Your task to perform on an android device: Go to network settings Image 0: 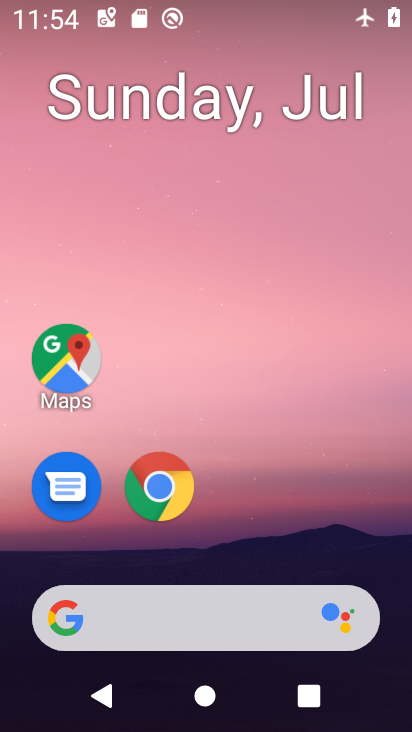
Step 0: drag from (312, 525) to (326, 120)
Your task to perform on an android device: Go to network settings Image 1: 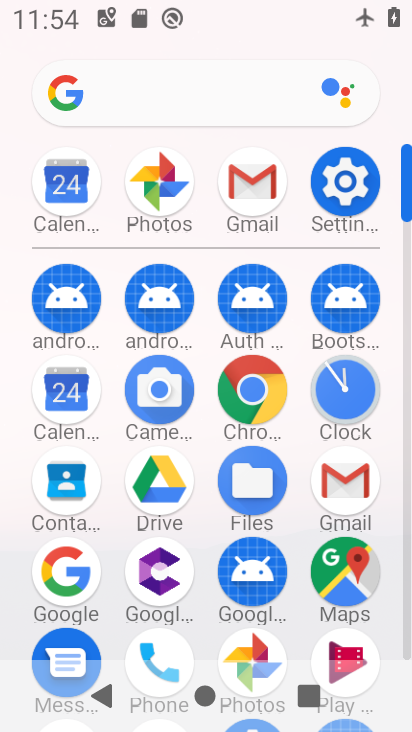
Step 1: click (357, 202)
Your task to perform on an android device: Go to network settings Image 2: 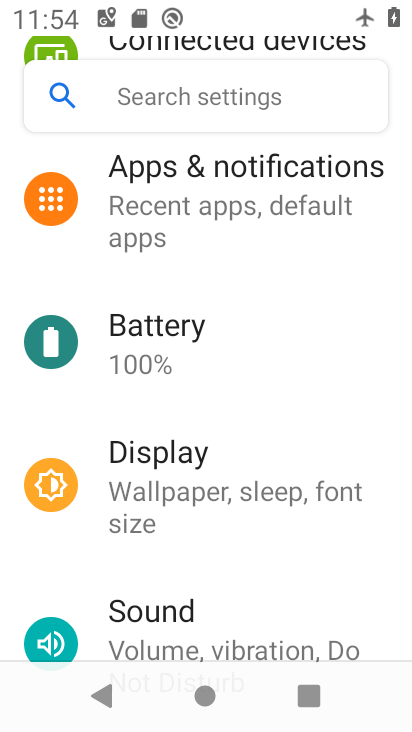
Step 2: drag from (357, 597) to (363, 437)
Your task to perform on an android device: Go to network settings Image 3: 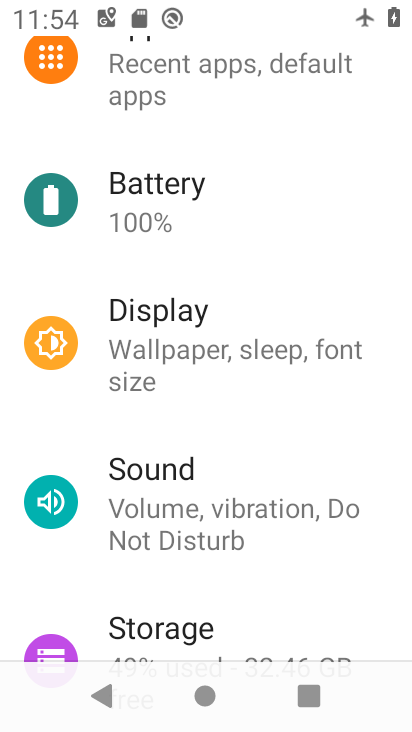
Step 3: drag from (358, 605) to (346, 350)
Your task to perform on an android device: Go to network settings Image 4: 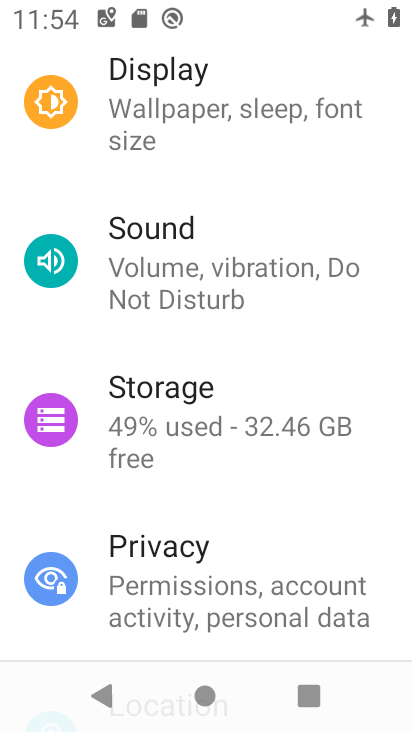
Step 4: drag from (328, 595) to (328, 405)
Your task to perform on an android device: Go to network settings Image 5: 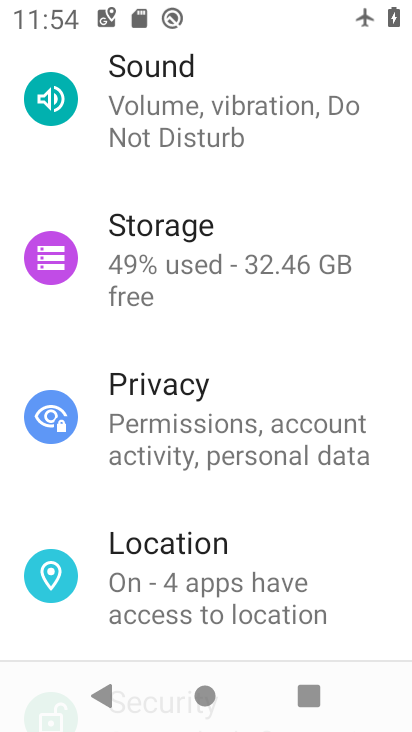
Step 5: drag from (363, 599) to (343, 442)
Your task to perform on an android device: Go to network settings Image 6: 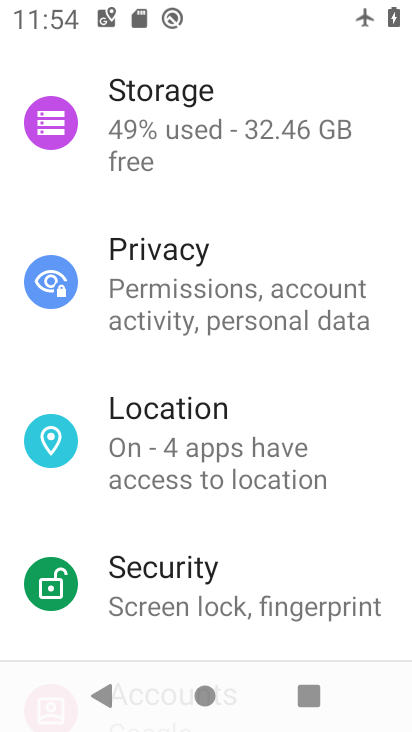
Step 6: drag from (343, 611) to (340, 475)
Your task to perform on an android device: Go to network settings Image 7: 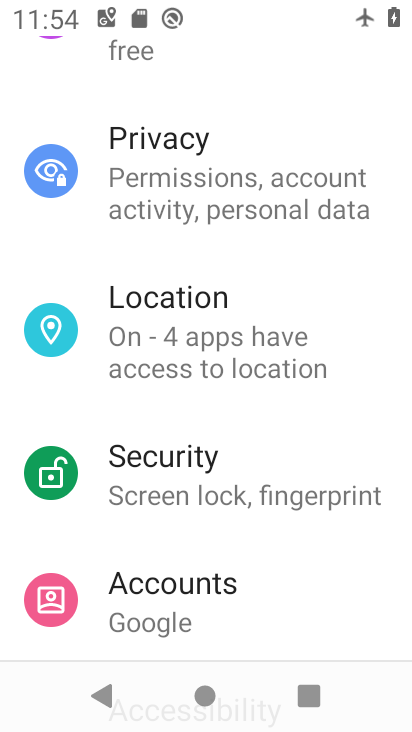
Step 7: drag from (365, 256) to (347, 373)
Your task to perform on an android device: Go to network settings Image 8: 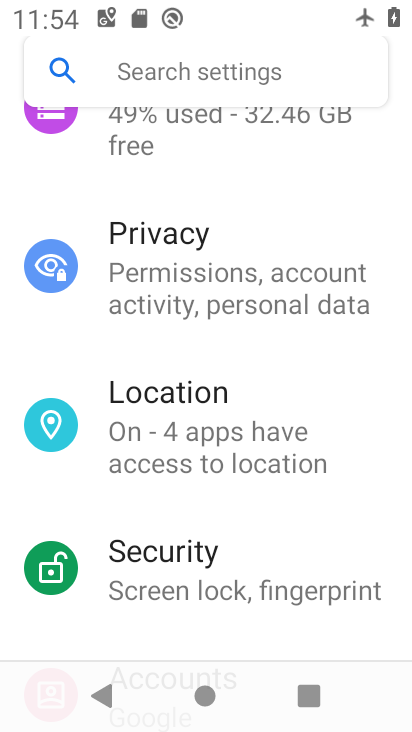
Step 8: drag from (351, 196) to (353, 345)
Your task to perform on an android device: Go to network settings Image 9: 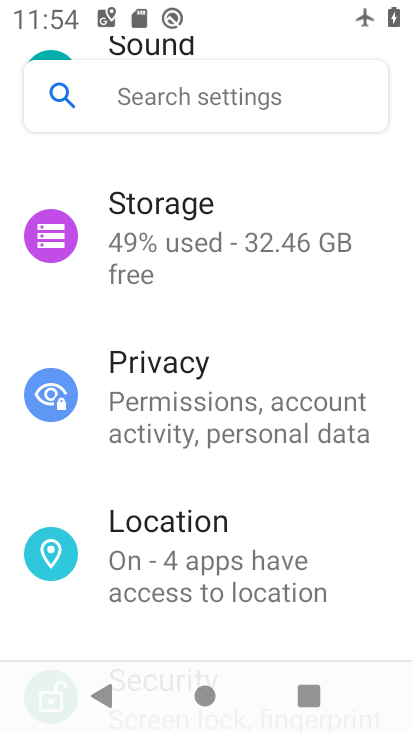
Step 9: drag from (358, 201) to (352, 324)
Your task to perform on an android device: Go to network settings Image 10: 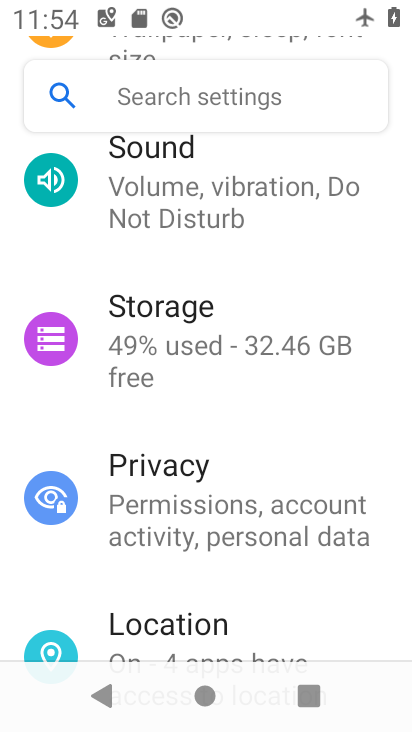
Step 10: drag from (377, 190) to (380, 350)
Your task to perform on an android device: Go to network settings Image 11: 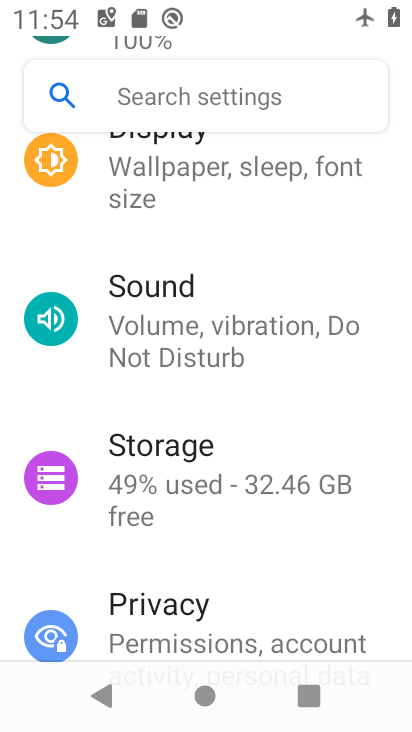
Step 11: drag from (373, 210) to (368, 315)
Your task to perform on an android device: Go to network settings Image 12: 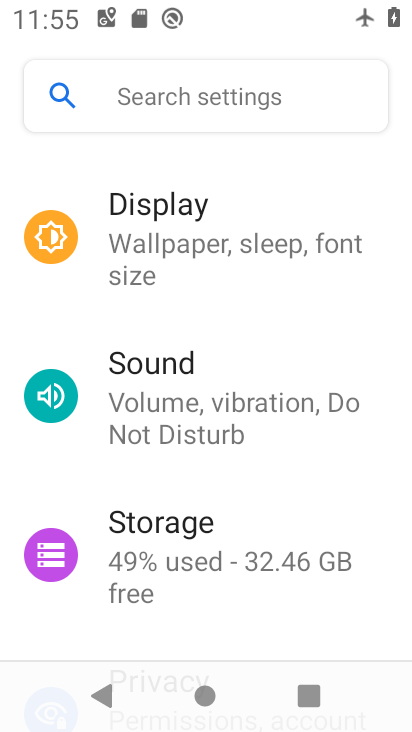
Step 12: drag from (361, 259) to (356, 369)
Your task to perform on an android device: Go to network settings Image 13: 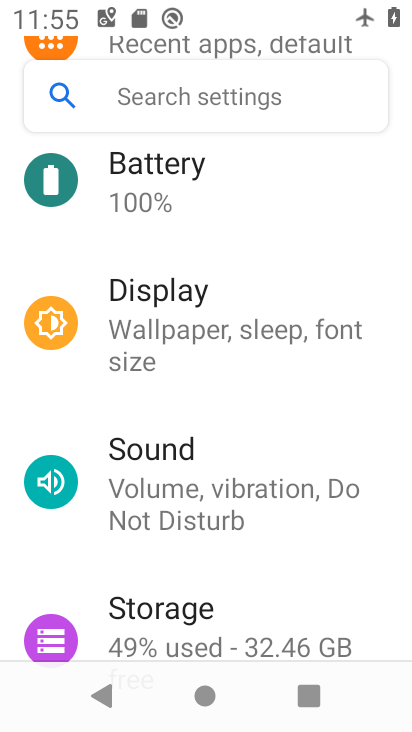
Step 13: drag from (355, 202) to (363, 404)
Your task to perform on an android device: Go to network settings Image 14: 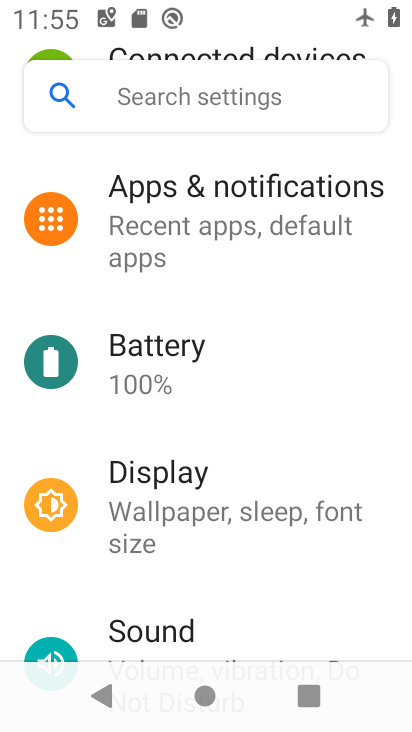
Step 14: drag from (366, 194) to (346, 393)
Your task to perform on an android device: Go to network settings Image 15: 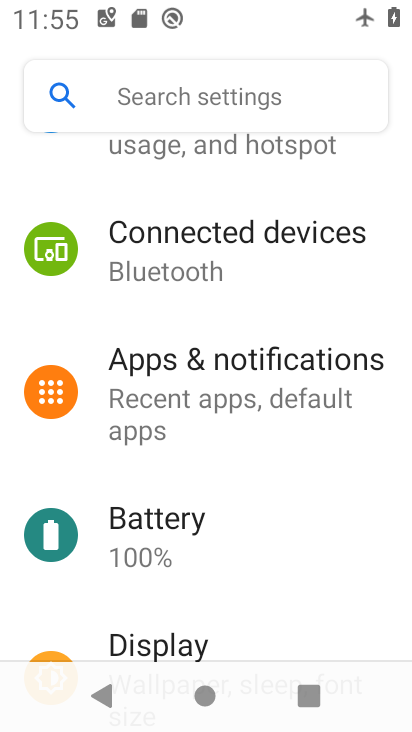
Step 15: drag from (358, 158) to (362, 347)
Your task to perform on an android device: Go to network settings Image 16: 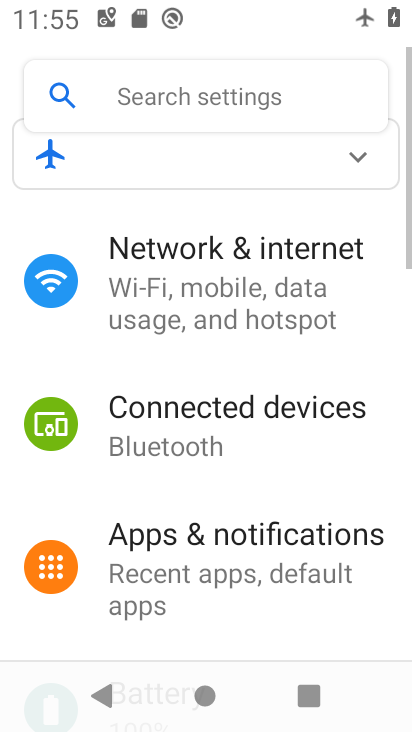
Step 16: click (290, 298)
Your task to perform on an android device: Go to network settings Image 17: 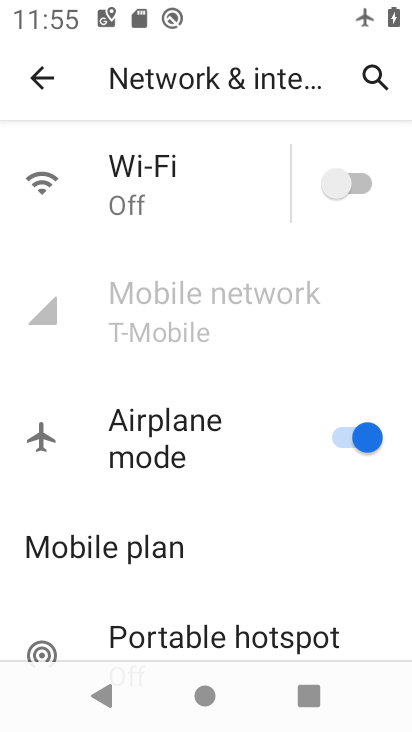
Step 17: task complete